Your task to perform on an android device: change notification settings in the gmail app Image 0: 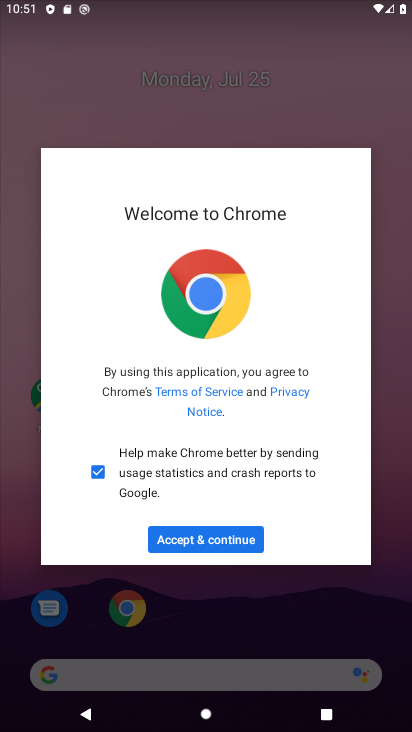
Step 0: press home button
Your task to perform on an android device: change notification settings in the gmail app Image 1: 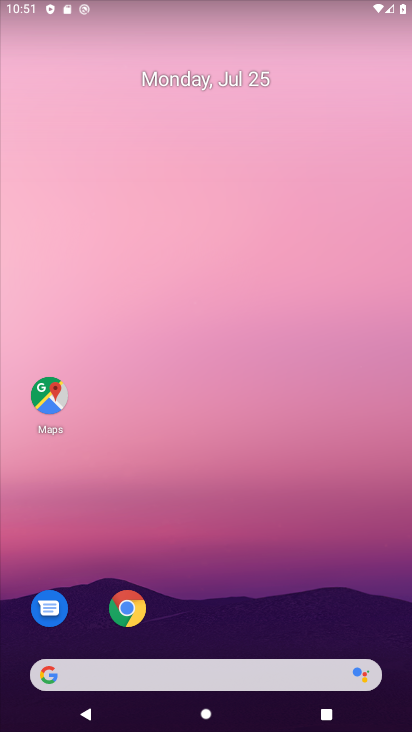
Step 1: drag from (294, 624) to (303, 61)
Your task to perform on an android device: change notification settings in the gmail app Image 2: 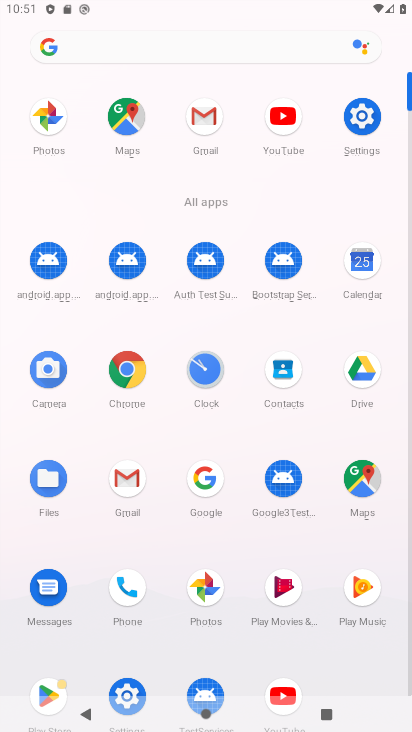
Step 2: click (203, 123)
Your task to perform on an android device: change notification settings in the gmail app Image 3: 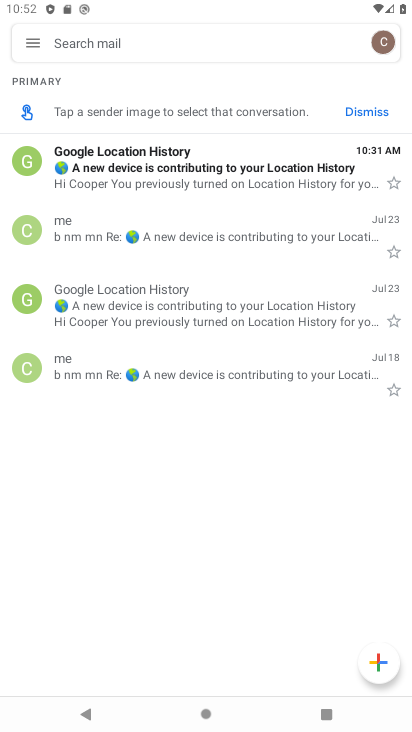
Step 3: click (23, 47)
Your task to perform on an android device: change notification settings in the gmail app Image 4: 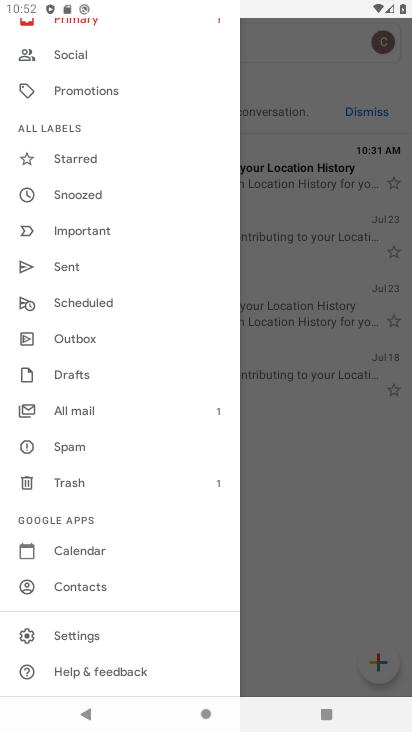
Step 4: click (95, 634)
Your task to perform on an android device: change notification settings in the gmail app Image 5: 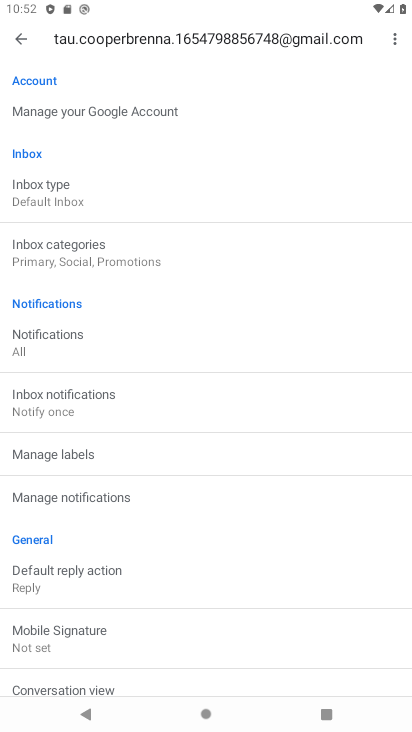
Step 5: click (56, 345)
Your task to perform on an android device: change notification settings in the gmail app Image 6: 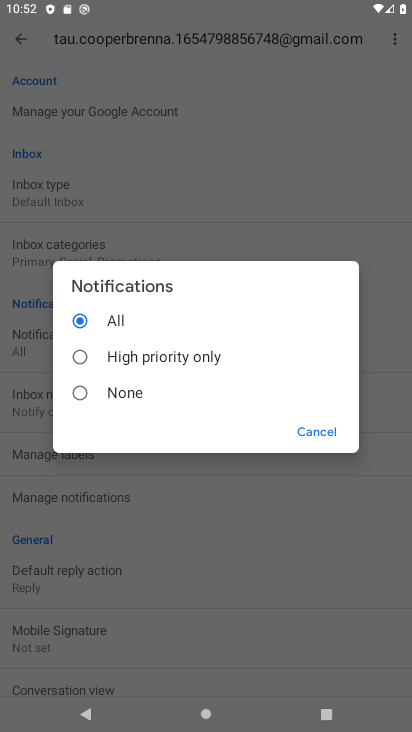
Step 6: click (82, 354)
Your task to perform on an android device: change notification settings in the gmail app Image 7: 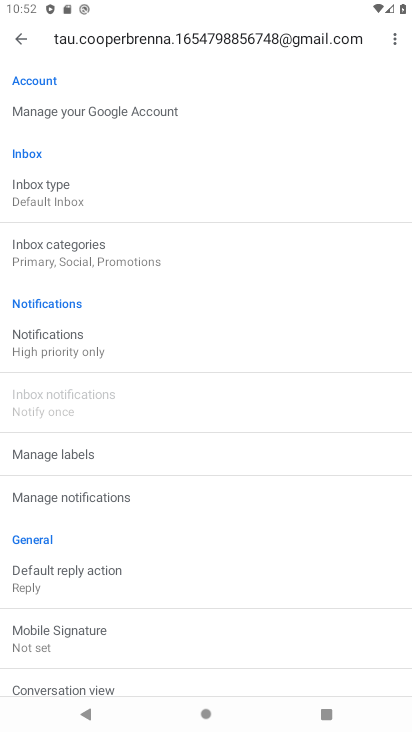
Step 7: task complete